Your task to perform on an android device: What is the recent news? Image 0: 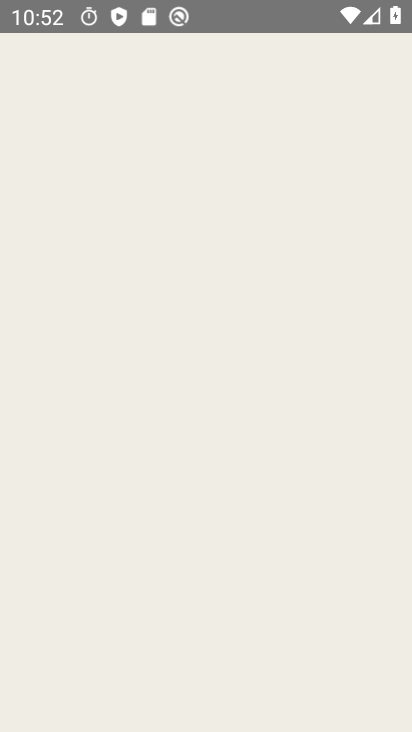
Step 0: click (360, 197)
Your task to perform on an android device: What is the recent news? Image 1: 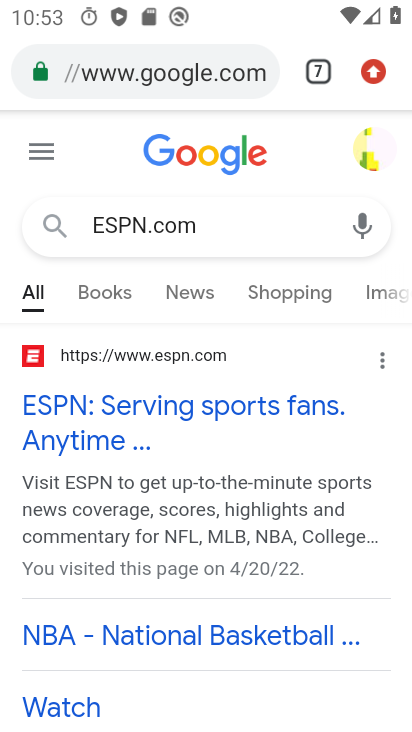
Step 1: task complete